Your task to perform on an android device: add a contact in the contacts app Image 0: 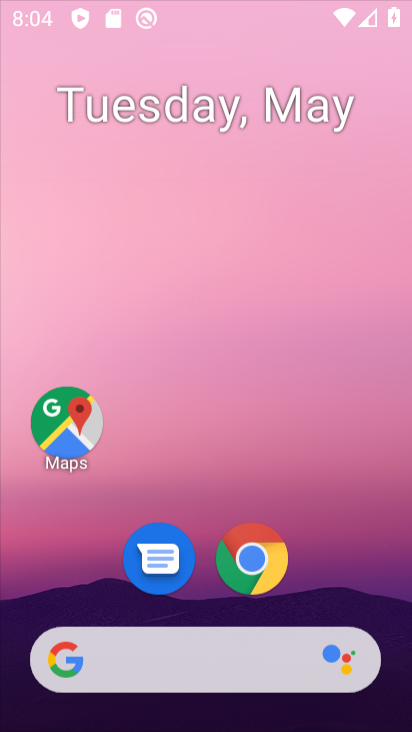
Step 0: drag from (191, 646) to (161, 89)
Your task to perform on an android device: add a contact in the contacts app Image 1: 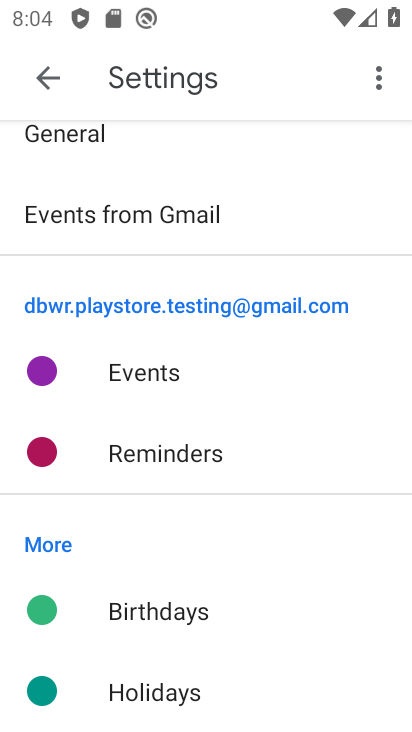
Step 1: press home button
Your task to perform on an android device: add a contact in the contacts app Image 2: 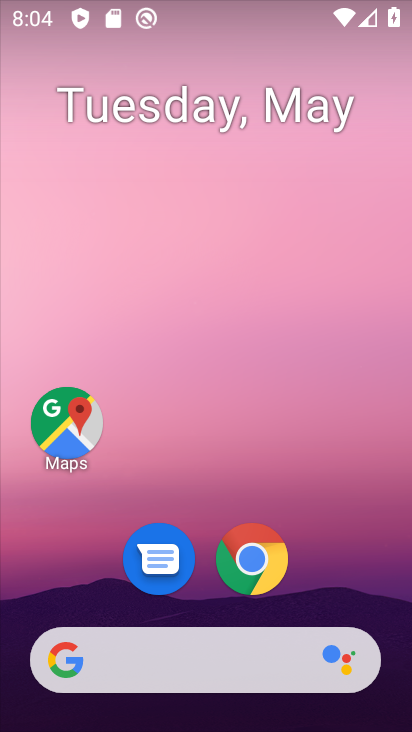
Step 2: drag from (200, 656) to (154, 222)
Your task to perform on an android device: add a contact in the contacts app Image 3: 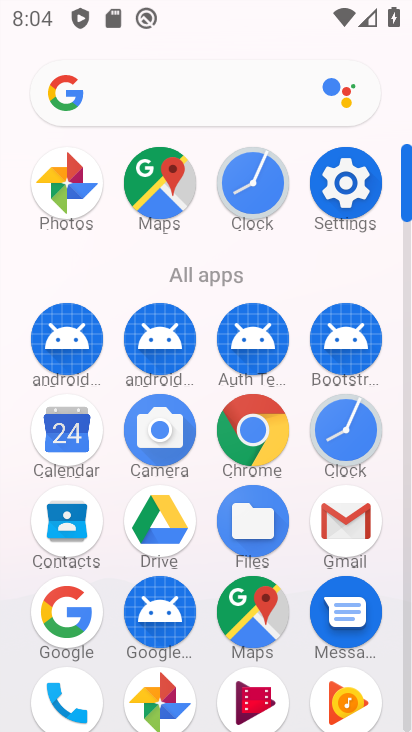
Step 3: click (62, 543)
Your task to perform on an android device: add a contact in the contacts app Image 4: 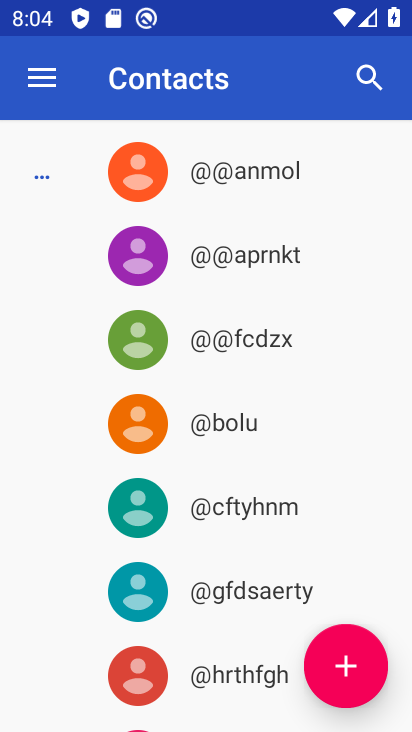
Step 4: click (349, 678)
Your task to perform on an android device: add a contact in the contacts app Image 5: 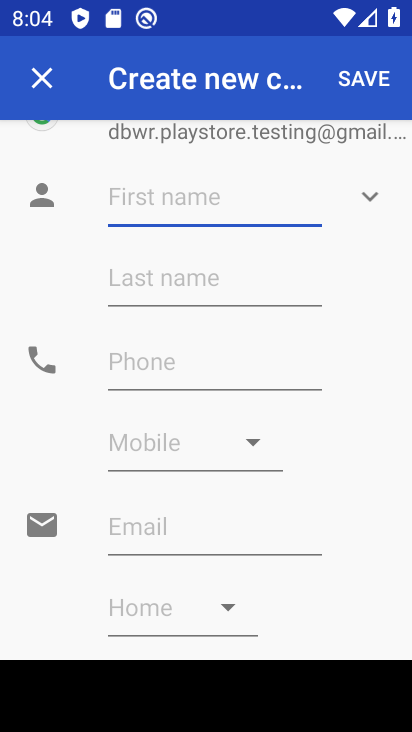
Step 5: type "nbxcv"
Your task to perform on an android device: add a contact in the contacts app Image 6: 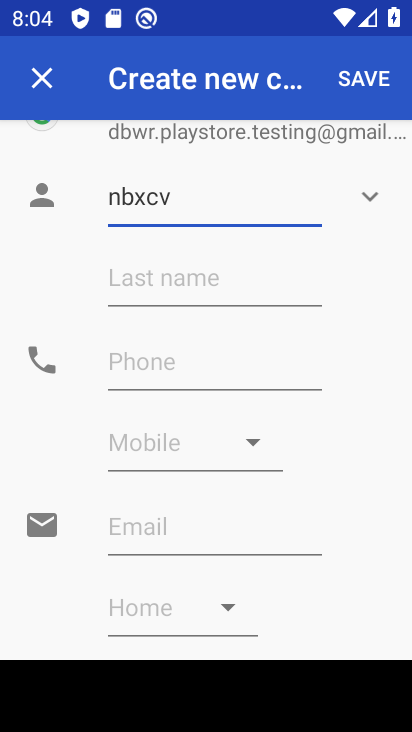
Step 6: click (196, 373)
Your task to perform on an android device: add a contact in the contacts app Image 7: 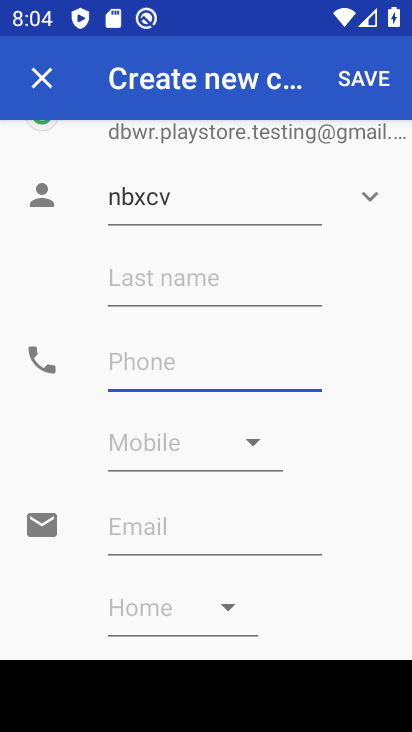
Step 7: click (220, 366)
Your task to perform on an android device: add a contact in the contacts app Image 8: 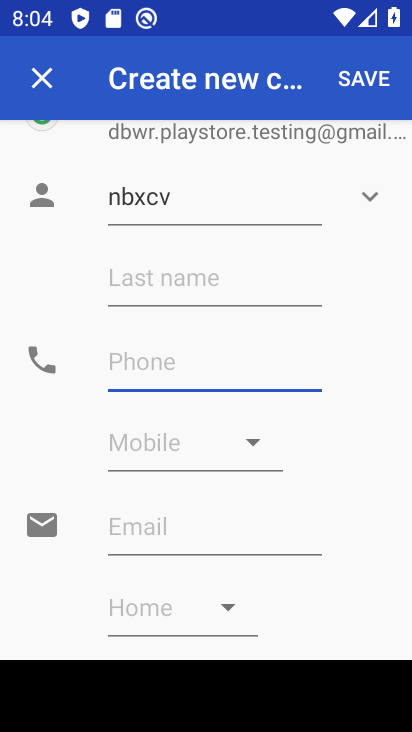
Step 8: type "38240288"
Your task to perform on an android device: add a contact in the contacts app Image 9: 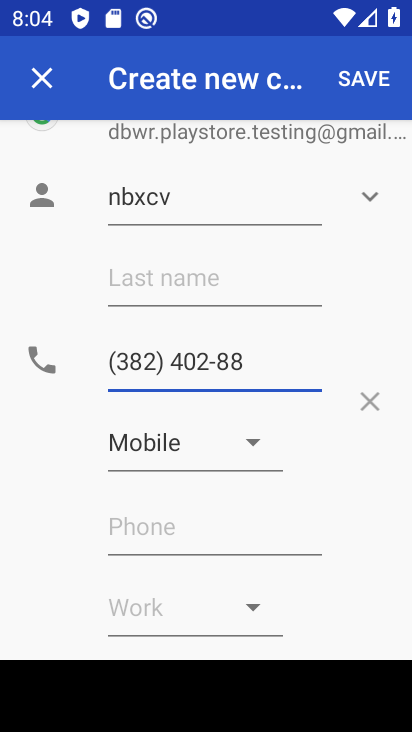
Step 9: click (362, 109)
Your task to perform on an android device: add a contact in the contacts app Image 10: 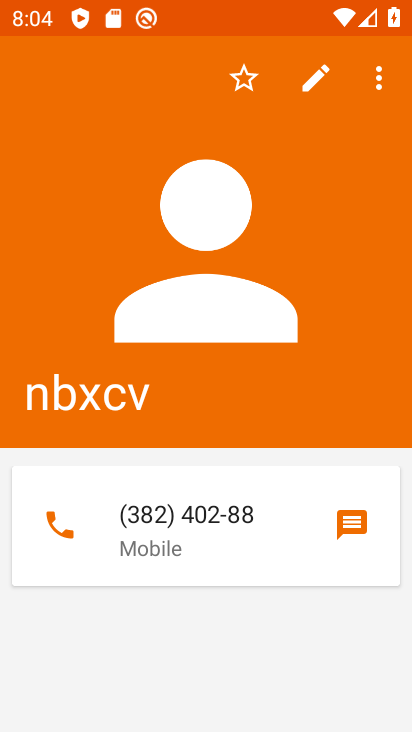
Step 10: task complete